Your task to perform on an android device: change alarm snooze length Image 0: 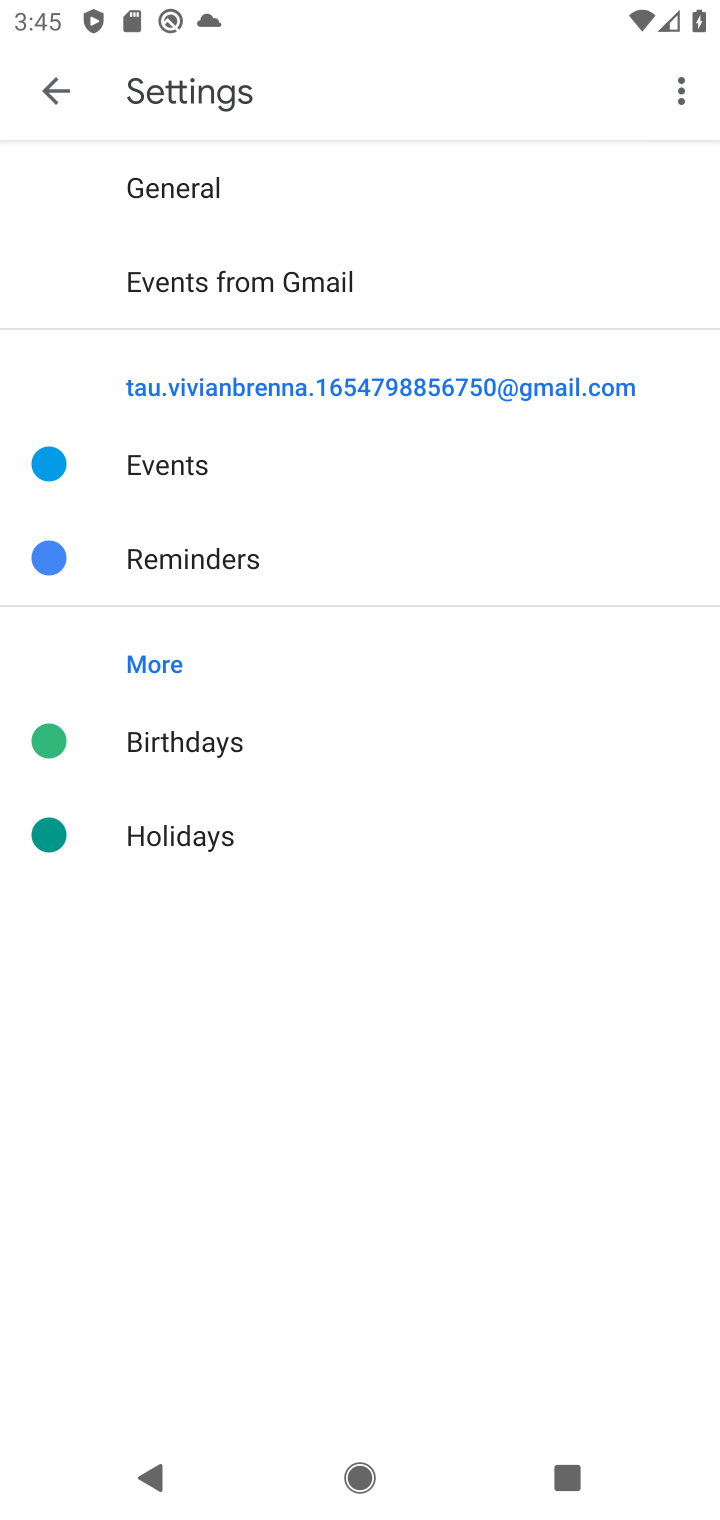
Step 0: press home button
Your task to perform on an android device: change alarm snooze length Image 1: 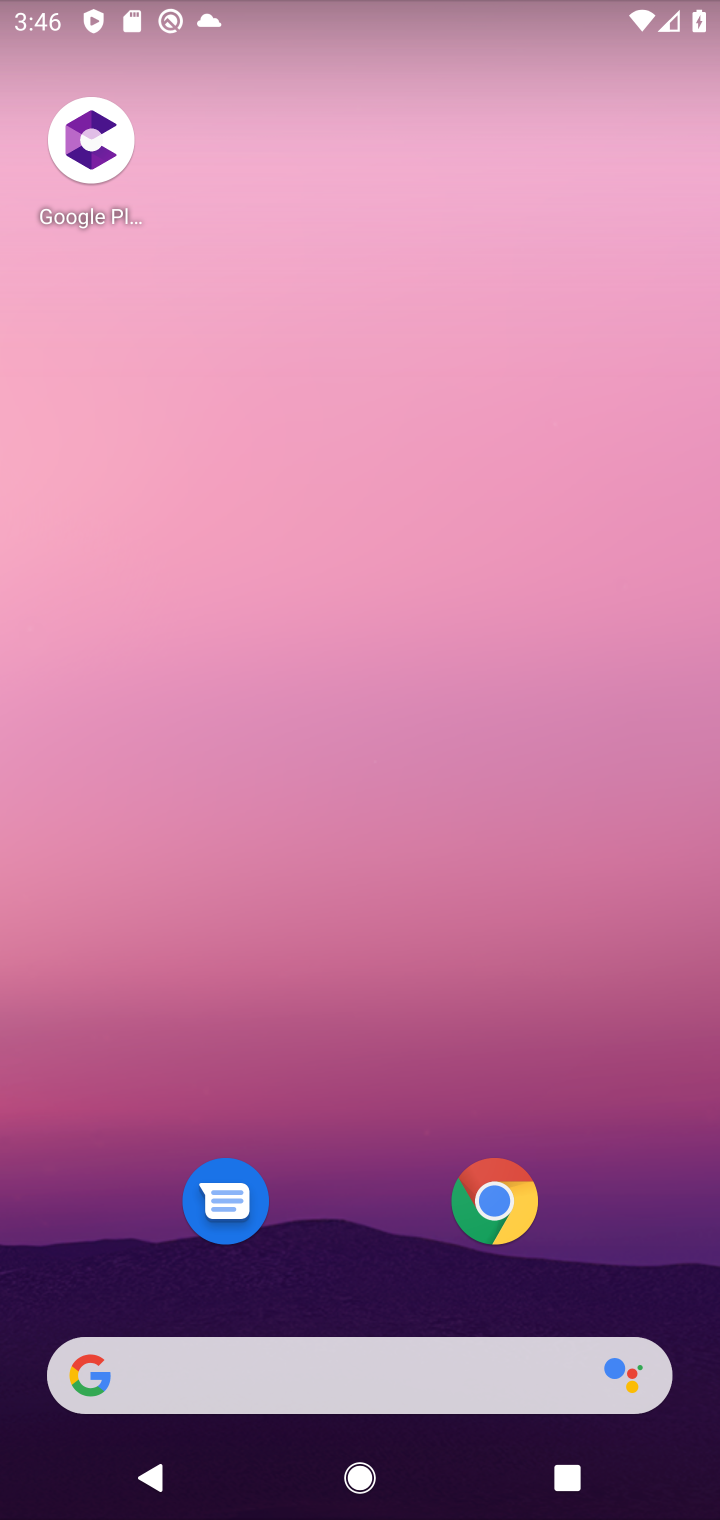
Step 1: drag from (364, 1292) to (130, 469)
Your task to perform on an android device: change alarm snooze length Image 2: 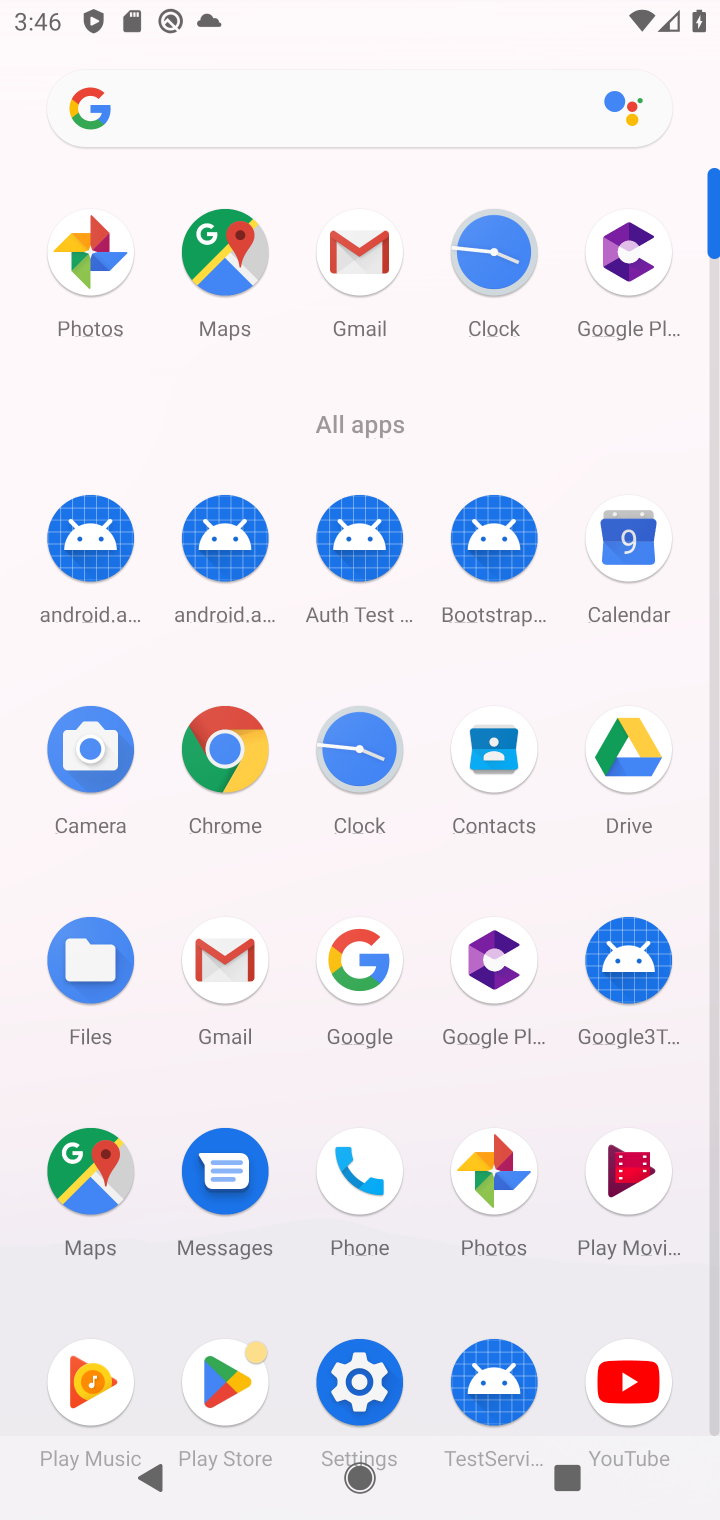
Step 2: click (468, 252)
Your task to perform on an android device: change alarm snooze length Image 3: 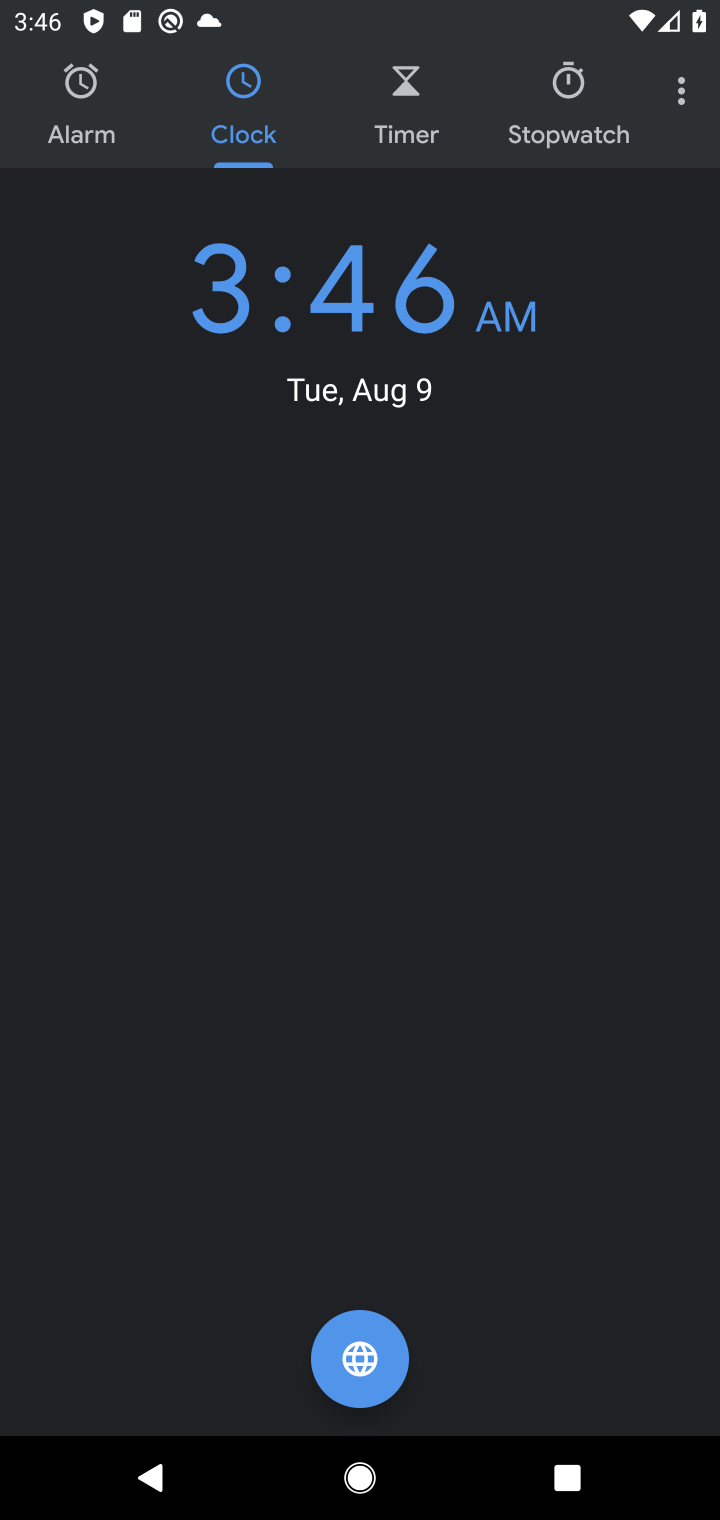
Step 3: click (699, 90)
Your task to perform on an android device: change alarm snooze length Image 4: 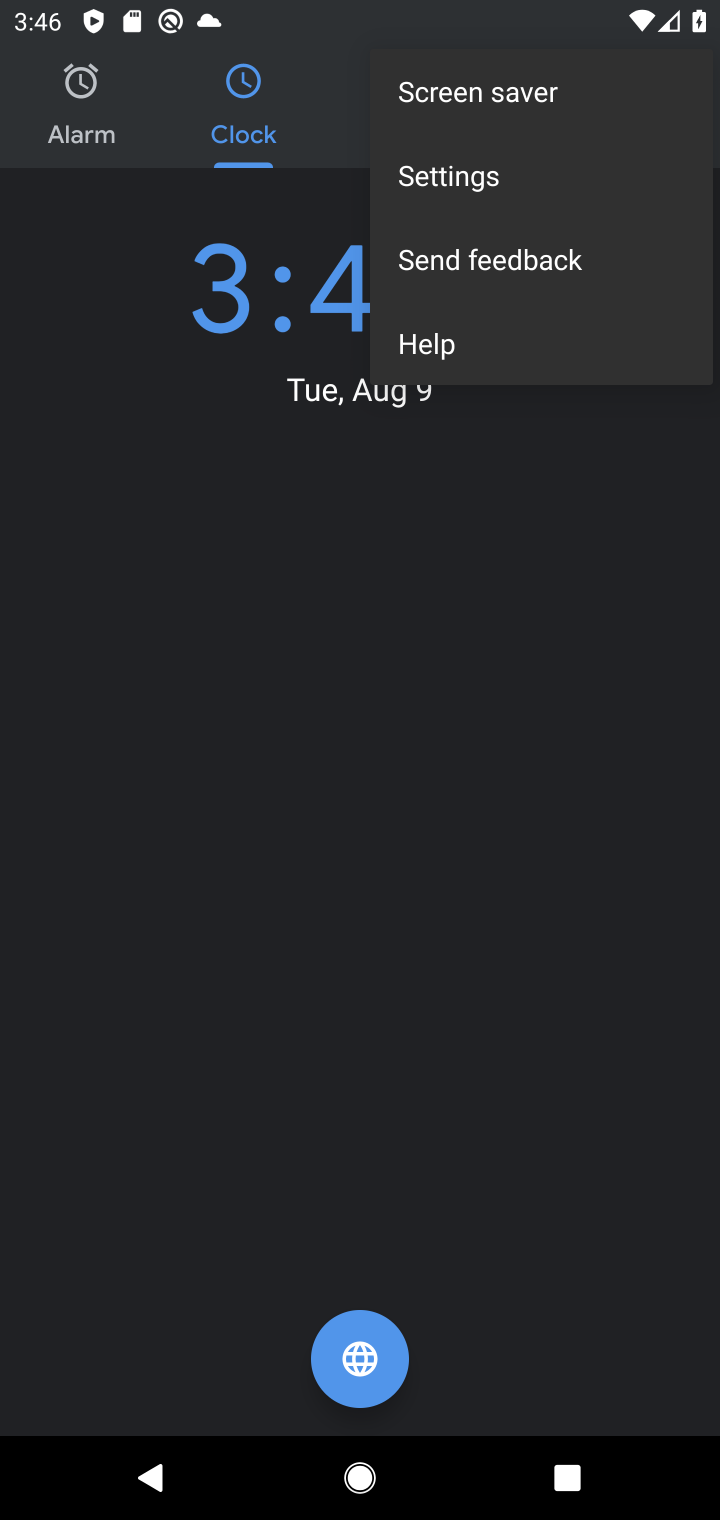
Step 4: click (445, 168)
Your task to perform on an android device: change alarm snooze length Image 5: 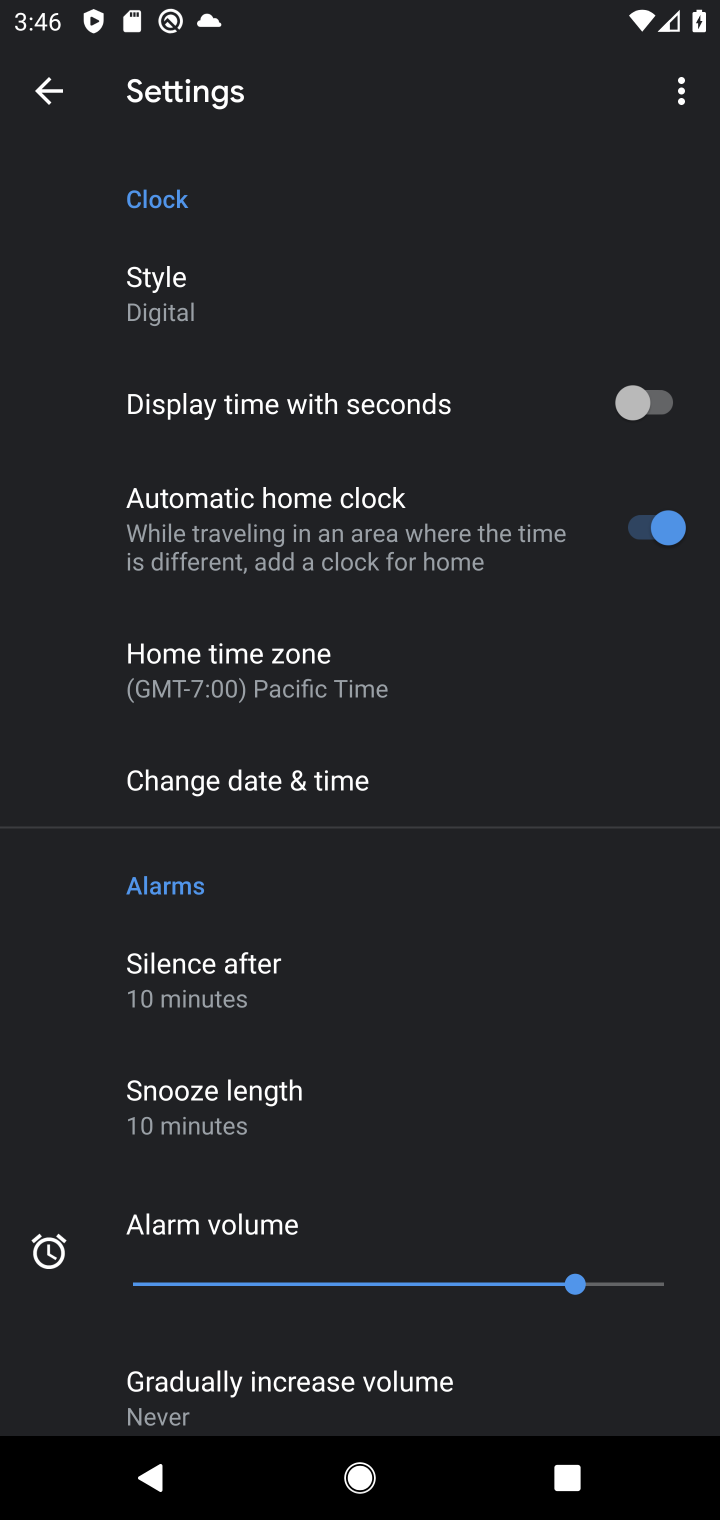
Step 5: click (227, 1119)
Your task to perform on an android device: change alarm snooze length Image 6: 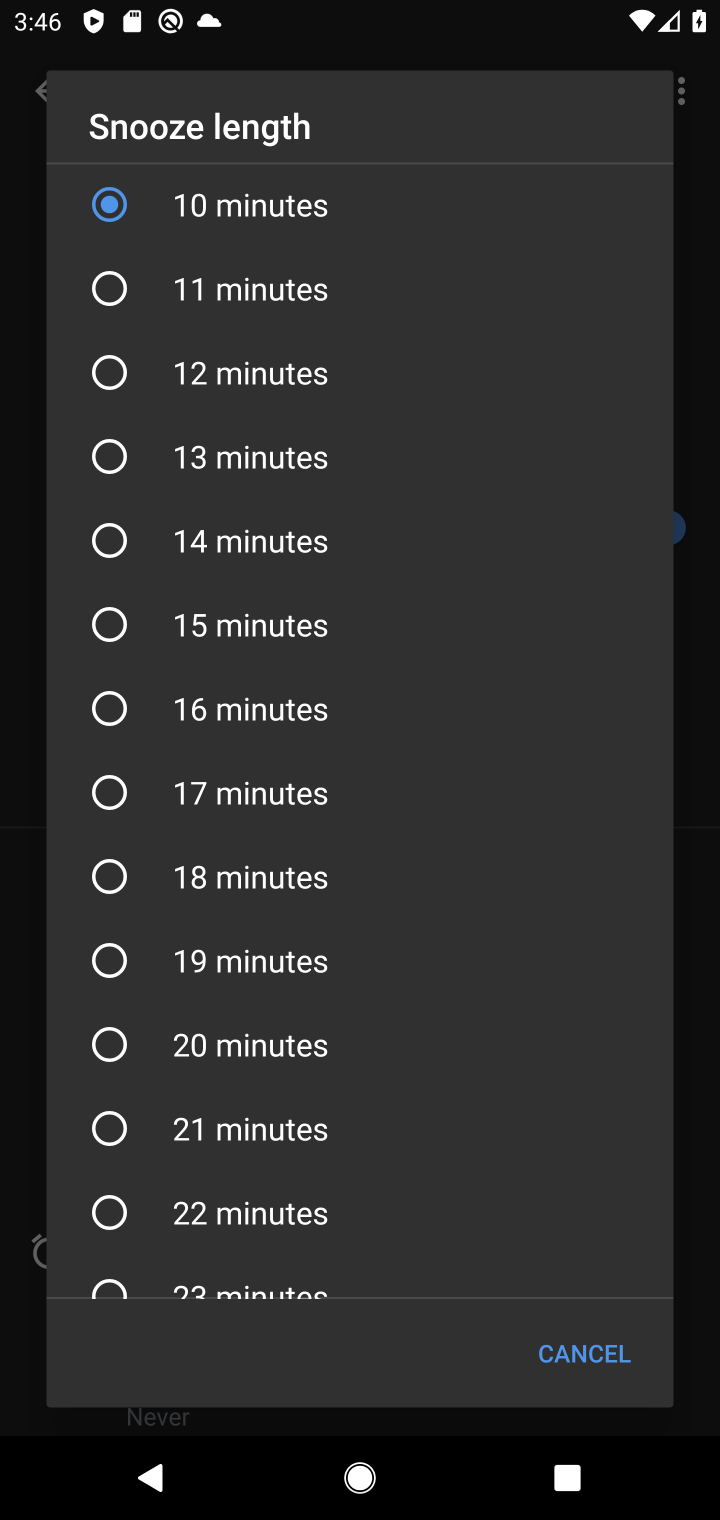
Step 6: click (227, 1132)
Your task to perform on an android device: change alarm snooze length Image 7: 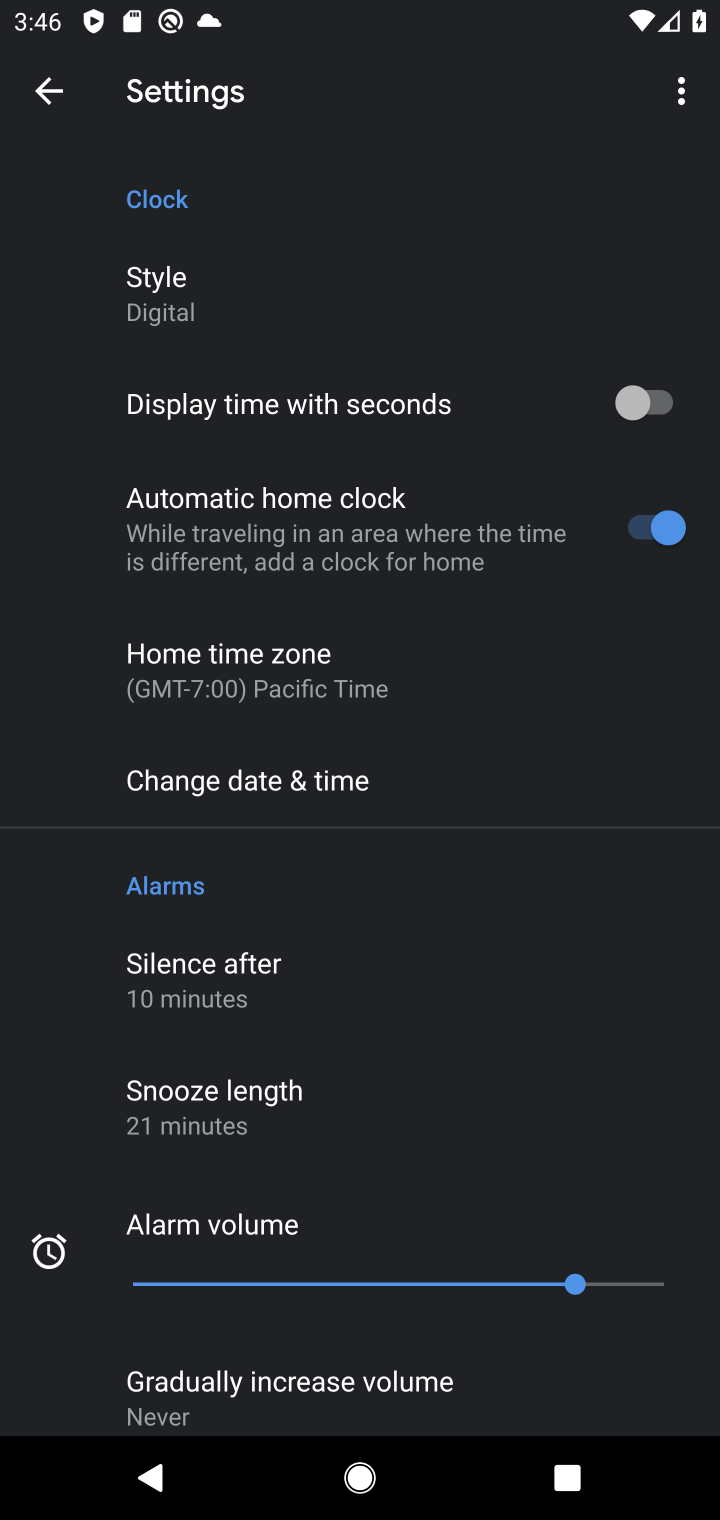
Step 7: click (227, 1132)
Your task to perform on an android device: change alarm snooze length Image 8: 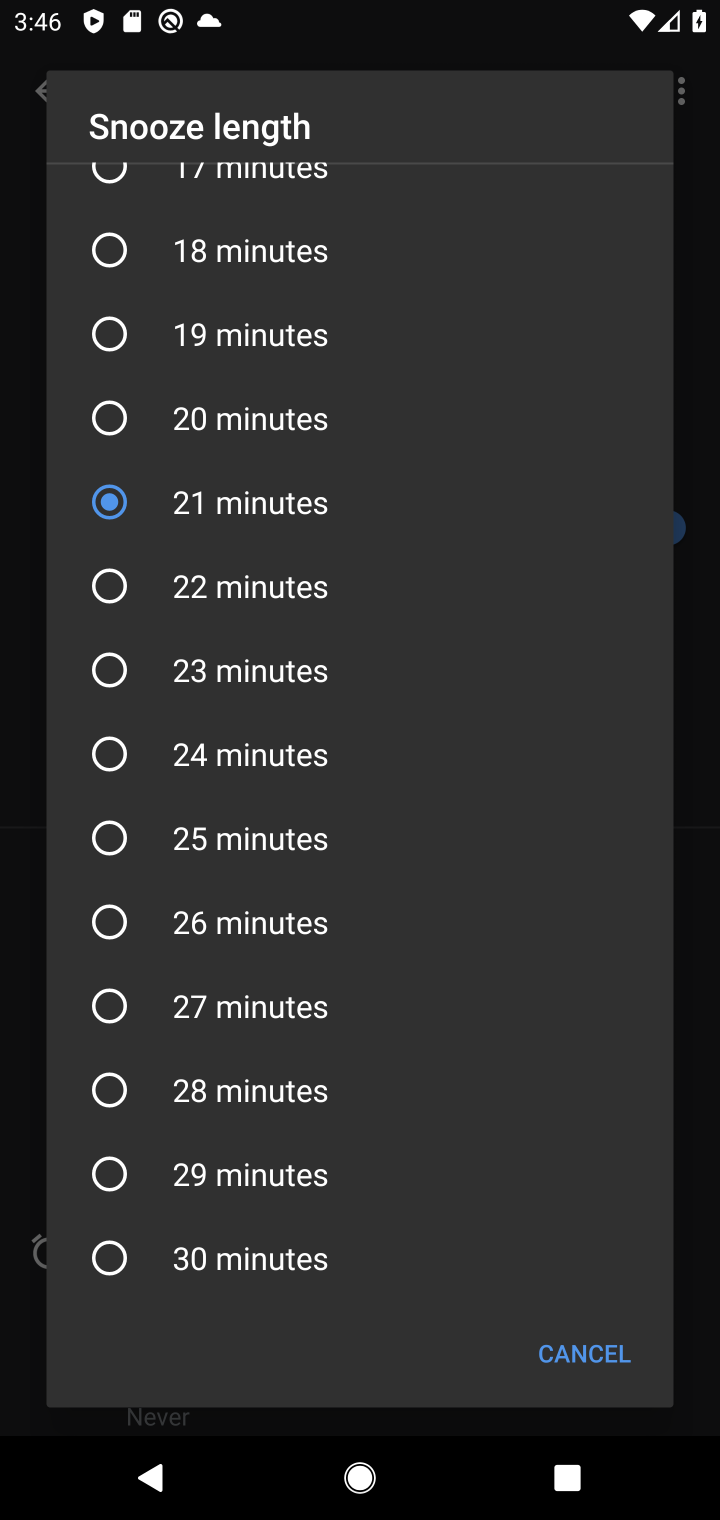
Step 8: task complete